Your task to perform on an android device: Go to calendar. Show me events next week Image 0: 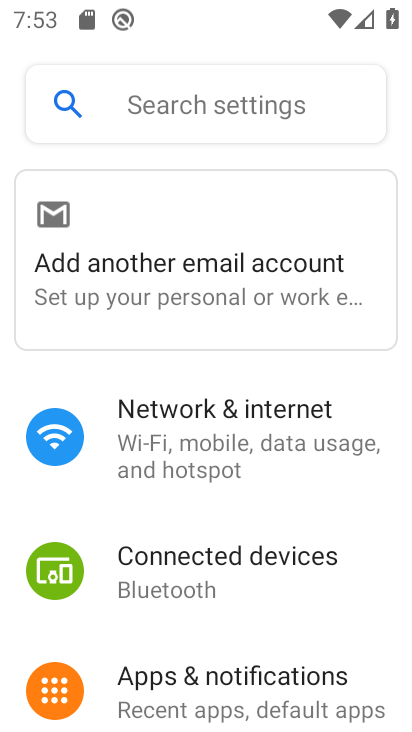
Step 0: press home button
Your task to perform on an android device: Go to calendar. Show me events next week Image 1: 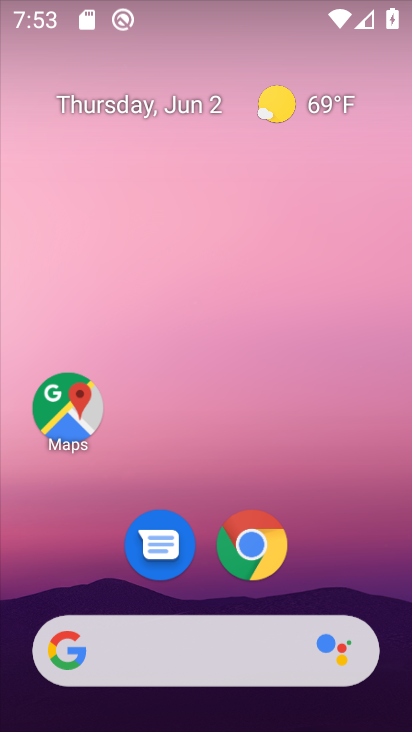
Step 1: drag from (321, 579) to (259, 100)
Your task to perform on an android device: Go to calendar. Show me events next week Image 2: 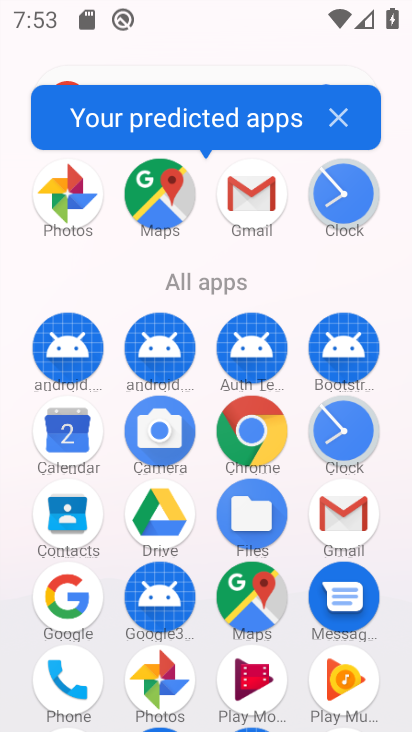
Step 2: click (68, 440)
Your task to perform on an android device: Go to calendar. Show me events next week Image 3: 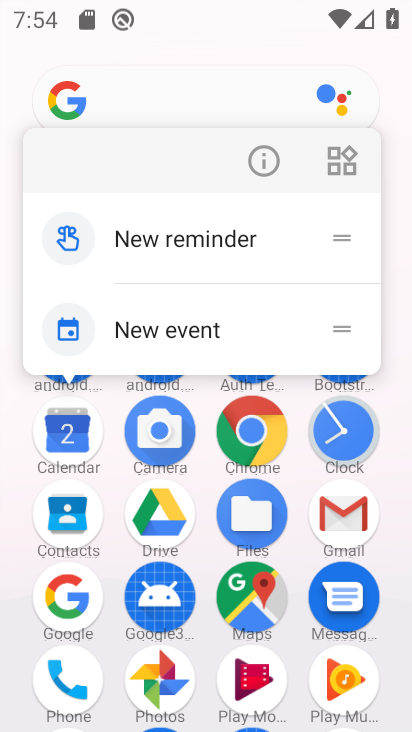
Step 3: click (64, 440)
Your task to perform on an android device: Go to calendar. Show me events next week Image 4: 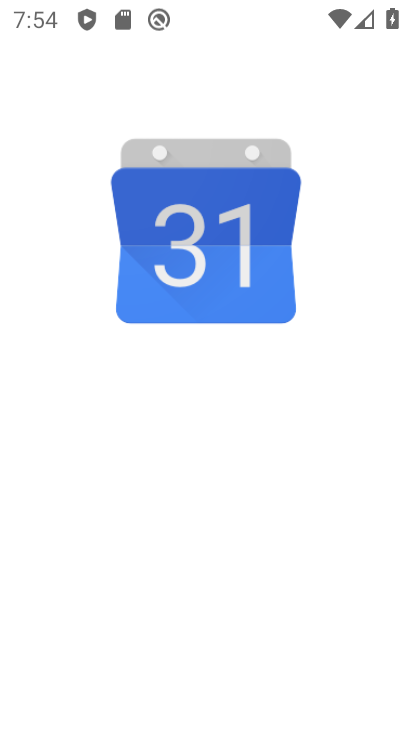
Step 4: click (64, 440)
Your task to perform on an android device: Go to calendar. Show me events next week Image 5: 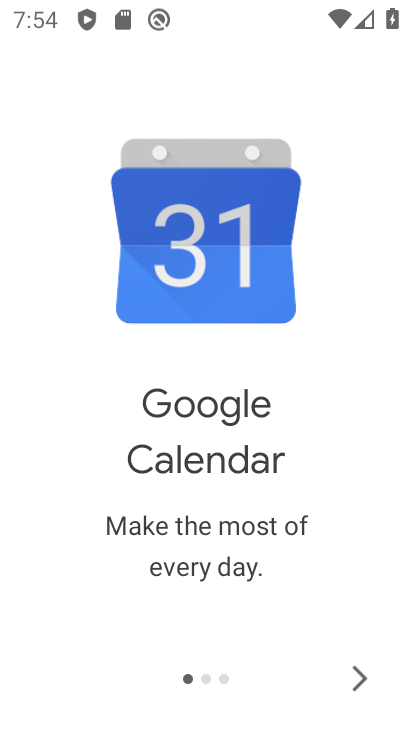
Step 5: click (351, 675)
Your task to perform on an android device: Go to calendar. Show me events next week Image 6: 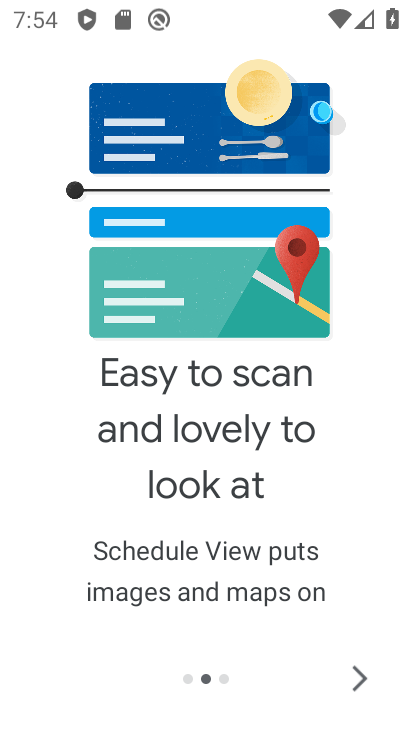
Step 6: click (351, 675)
Your task to perform on an android device: Go to calendar. Show me events next week Image 7: 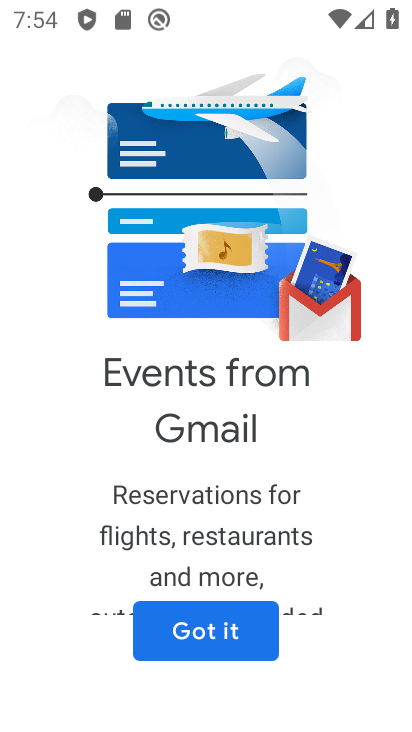
Step 7: click (231, 634)
Your task to perform on an android device: Go to calendar. Show me events next week Image 8: 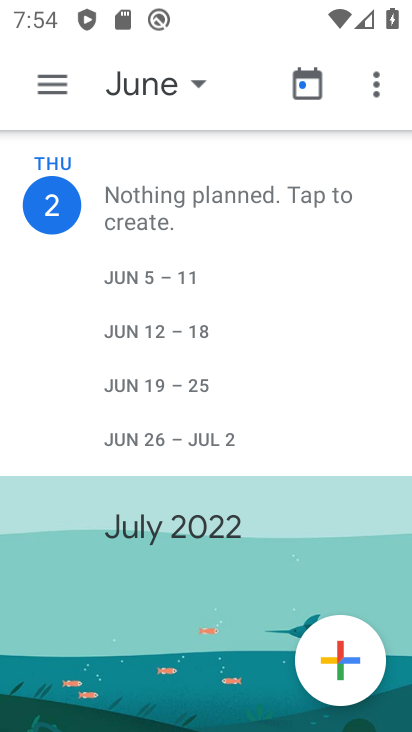
Step 8: click (60, 91)
Your task to perform on an android device: Go to calendar. Show me events next week Image 9: 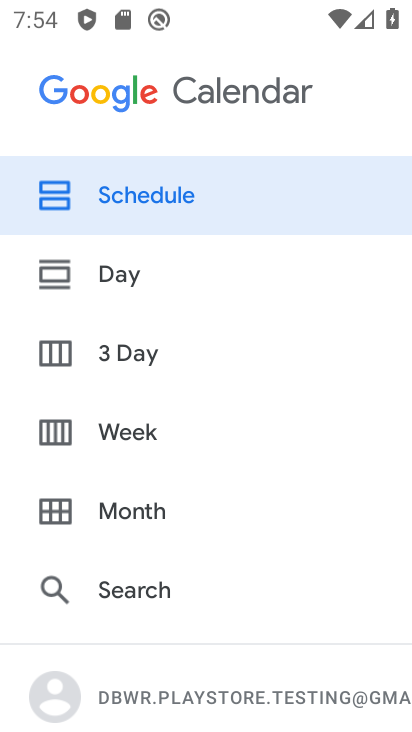
Step 9: click (143, 429)
Your task to perform on an android device: Go to calendar. Show me events next week Image 10: 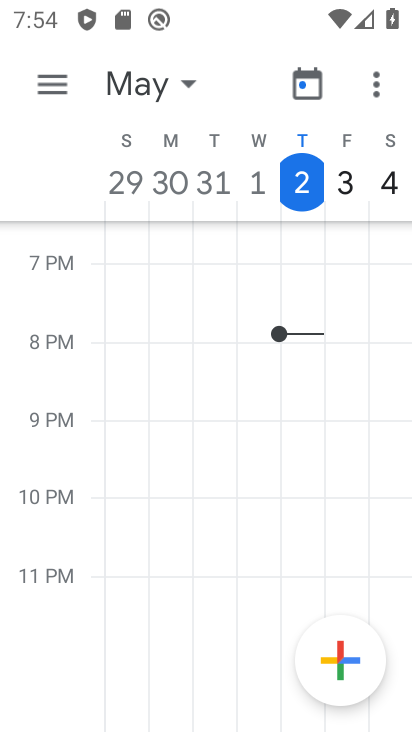
Step 10: task complete